Your task to perform on an android device: allow notifications from all sites in the chrome app Image 0: 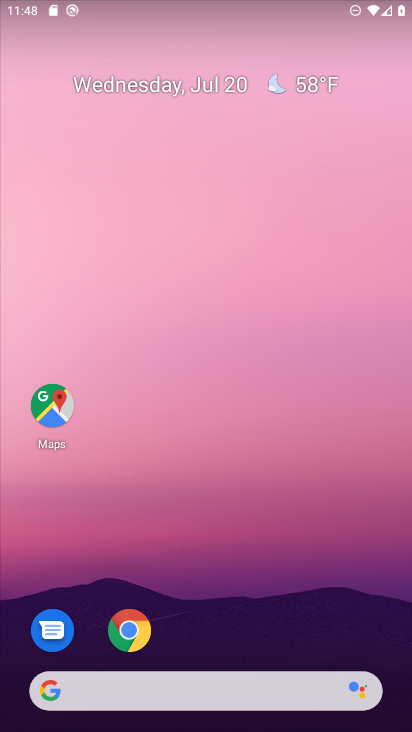
Step 0: drag from (189, 639) to (200, 163)
Your task to perform on an android device: allow notifications from all sites in the chrome app Image 1: 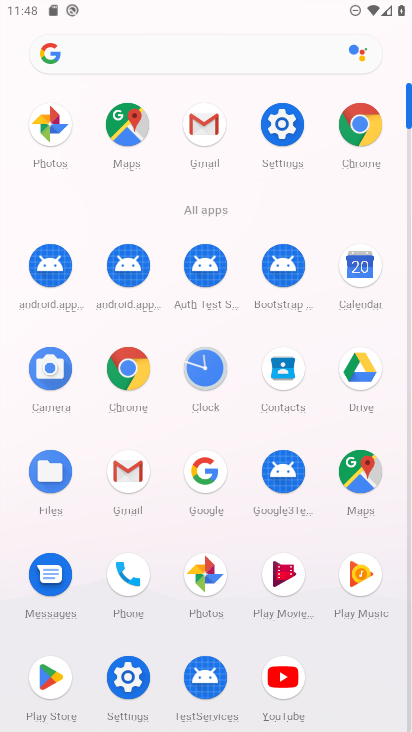
Step 1: click (131, 389)
Your task to perform on an android device: allow notifications from all sites in the chrome app Image 2: 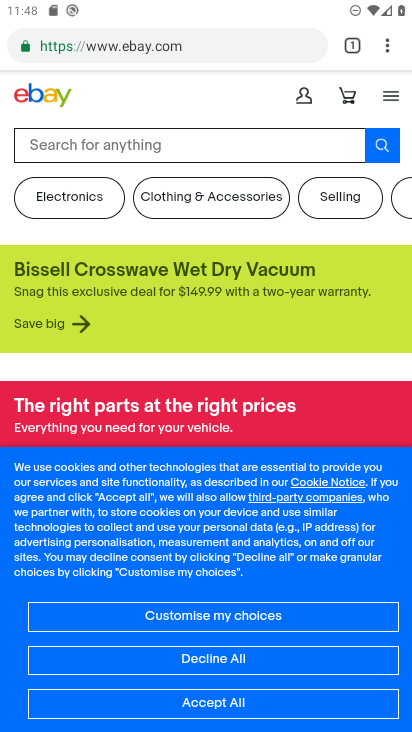
Step 2: click (387, 44)
Your task to perform on an android device: allow notifications from all sites in the chrome app Image 3: 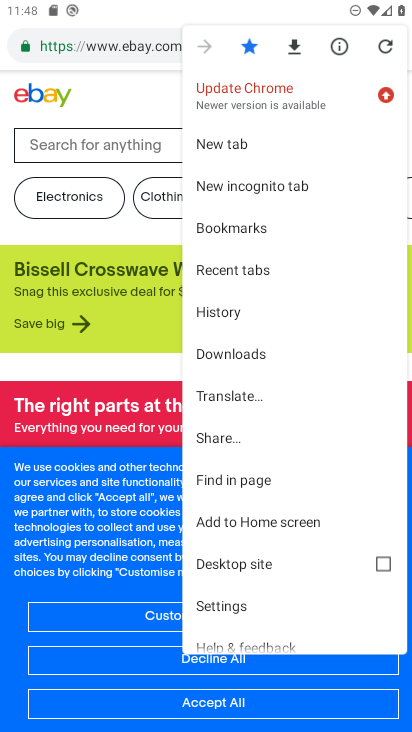
Step 3: click (387, 48)
Your task to perform on an android device: allow notifications from all sites in the chrome app Image 4: 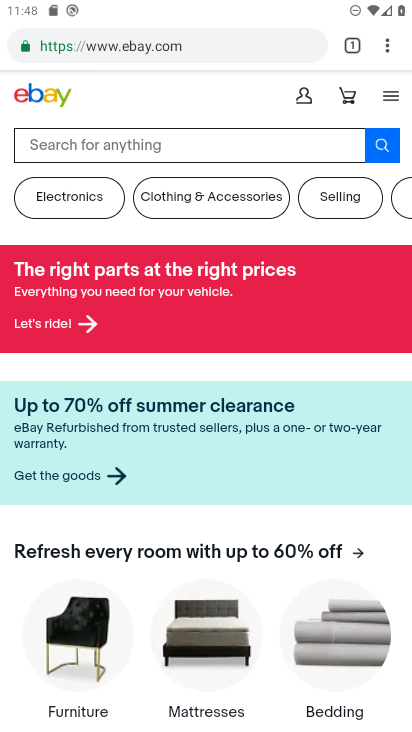
Step 4: click (388, 50)
Your task to perform on an android device: allow notifications from all sites in the chrome app Image 5: 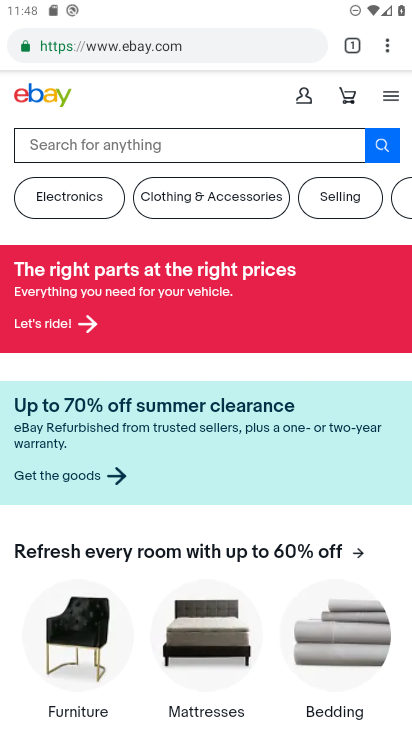
Step 5: click (379, 37)
Your task to perform on an android device: allow notifications from all sites in the chrome app Image 6: 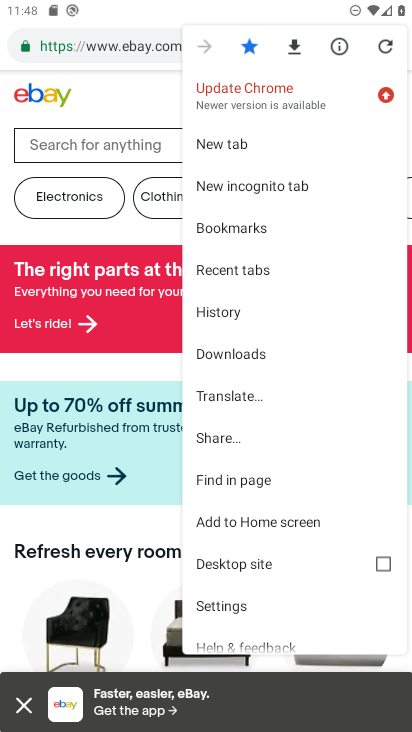
Step 6: click (218, 608)
Your task to perform on an android device: allow notifications from all sites in the chrome app Image 7: 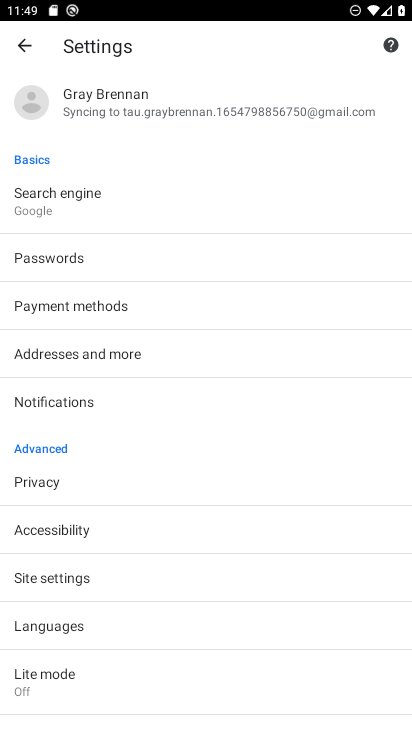
Step 7: click (72, 404)
Your task to perform on an android device: allow notifications from all sites in the chrome app Image 8: 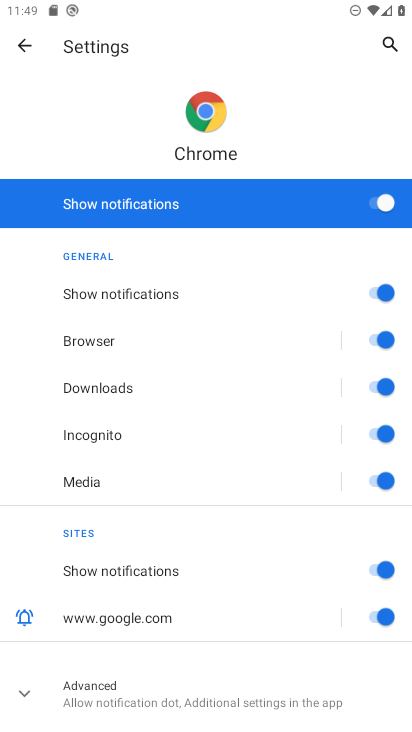
Step 8: task complete